Your task to perform on an android device: Check the news Image 0: 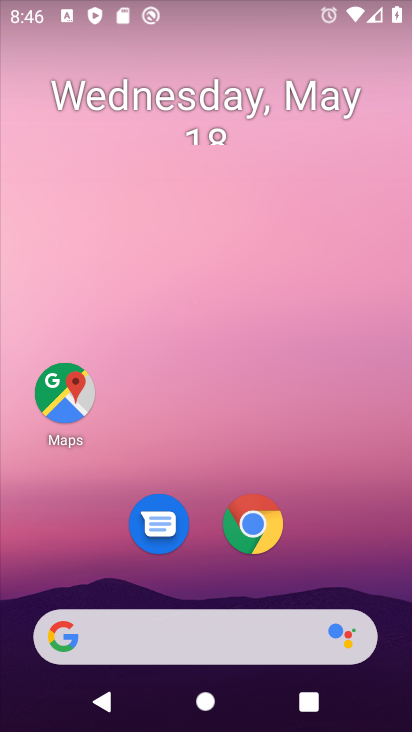
Step 0: click (188, 626)
Your task to perform on an android device: Check the news Image 1: 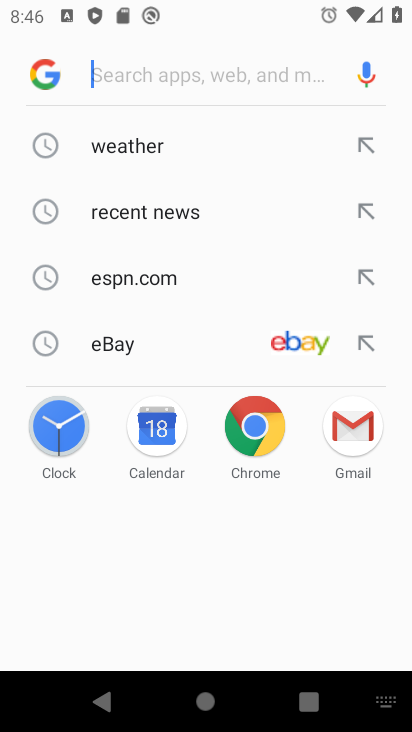
Step 1: click (134, 208)
Your task to perform on an android device: Check the news Image 2: 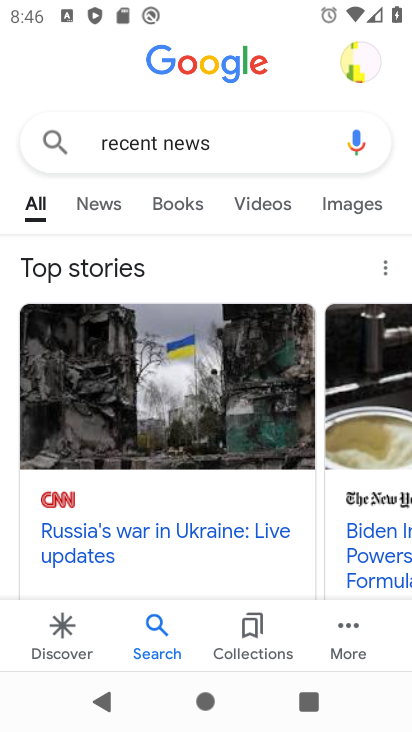
Step 2: click (106, 195)
Your task to perform on an android device: Check the news Image 3: 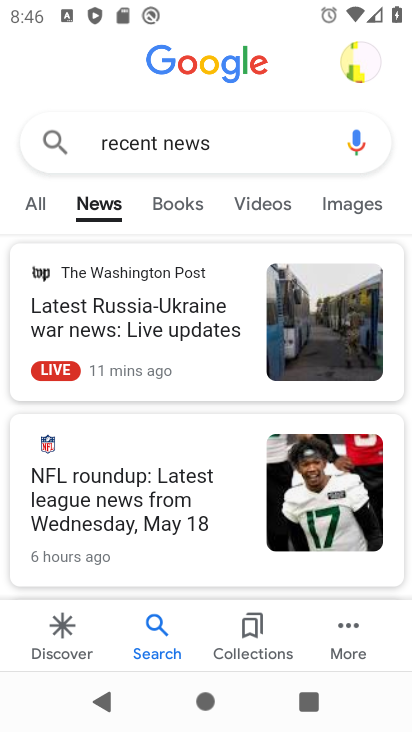
Step 3: task complete